Your task to perform on an android device: delete location history Image 0: 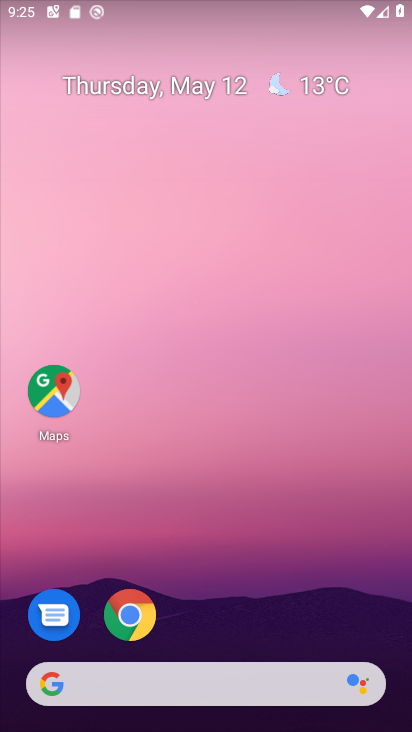
Step 0: press home button
Your task to perform on an android device: delete location history Image 1: 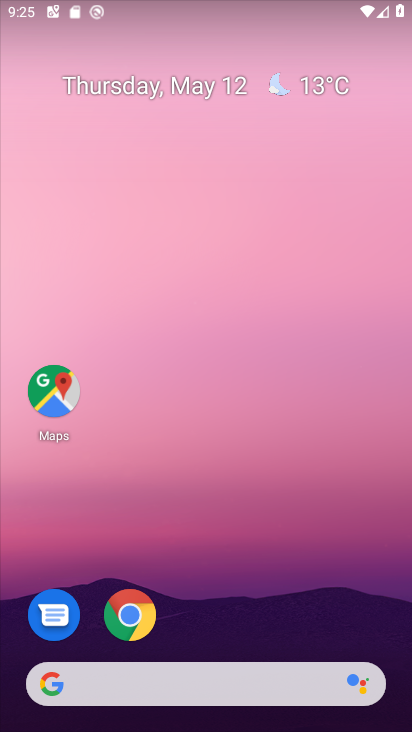
Step 1: drag from (268, 506) to (163, 12)
Your task to perform on an android device: delete location history Image 2: 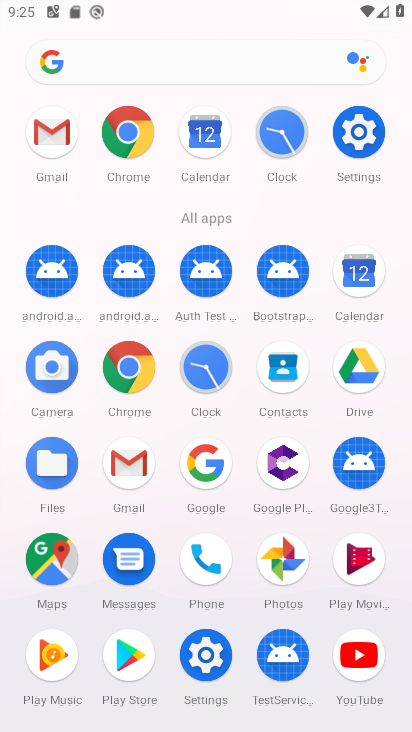
Step 2: click (43, 568)
Your task to perform on an android device: delete location history Image 3: 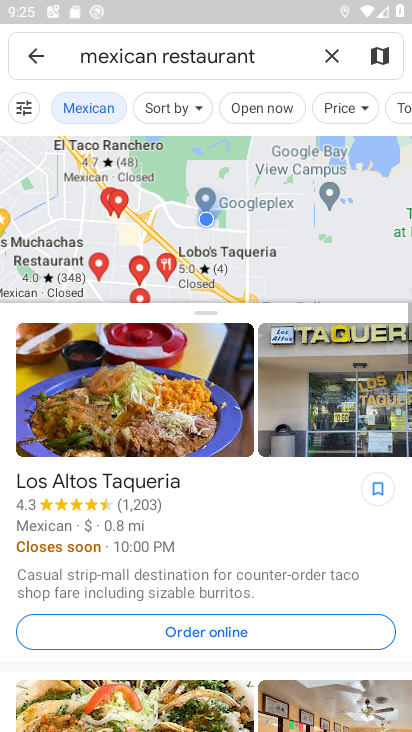
Step 3: click (31, 59)
Your task to perform on an android device: delete location history Image 4: 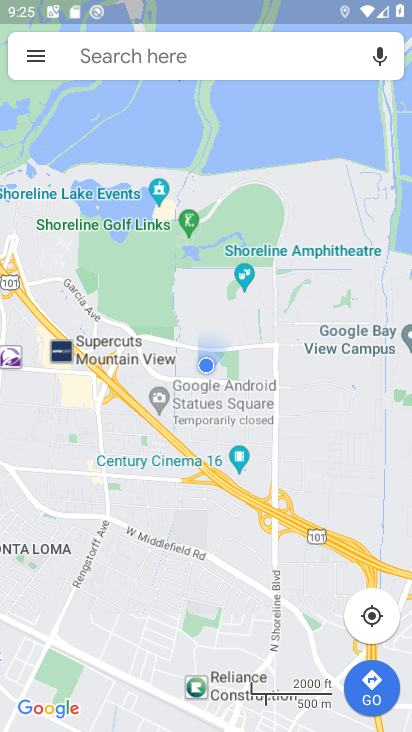
Step 4: click (35, 59)
Your task to perform on an android device: delete location history Image 5: 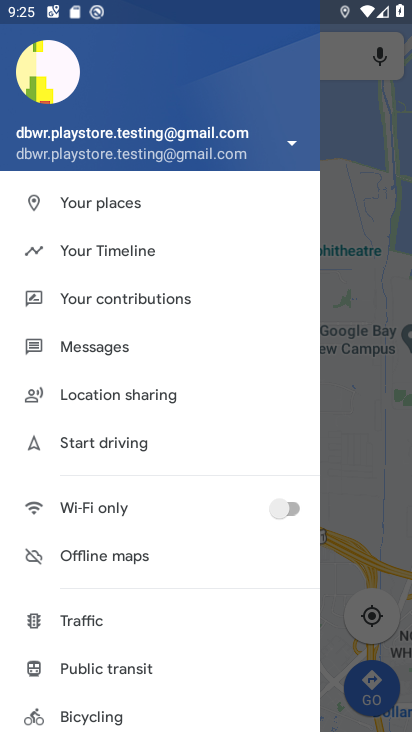
Step 5: click (126, 252)
Your task to perform on an android device: delete location history Image 6: 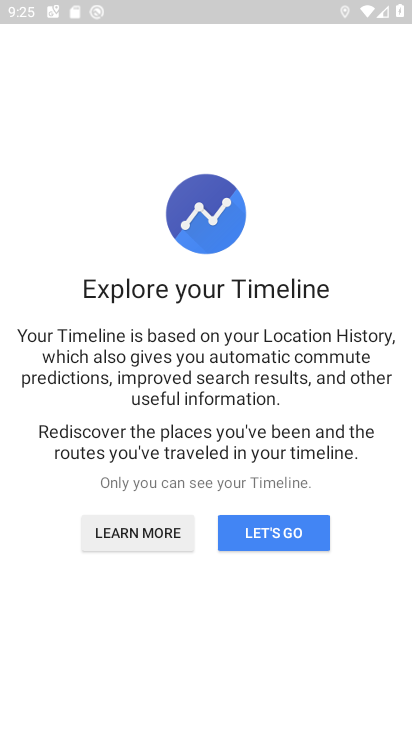
Step 6: click (246, 544)
Your task to perform on an android device: delete location history Image 7: 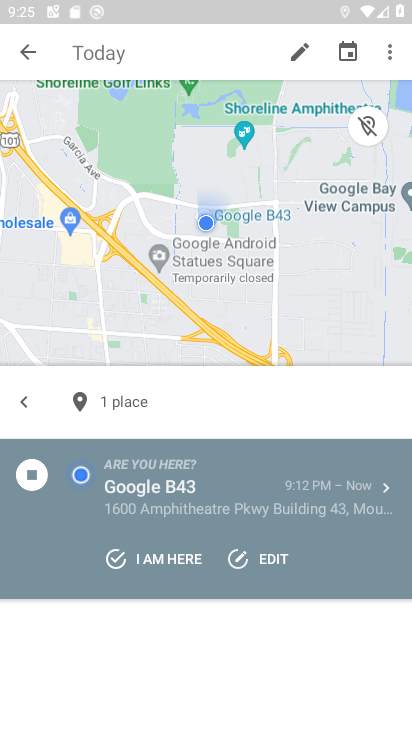
Step 7: click (389, 50)
Your task to perform on an android device: delete location history Image 8: 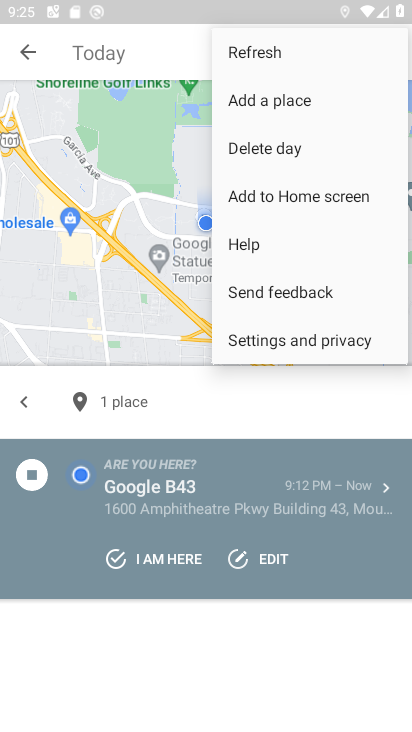
Step 8: click (304, 335)
Your task to perform on an android device: delete location history Image 9: 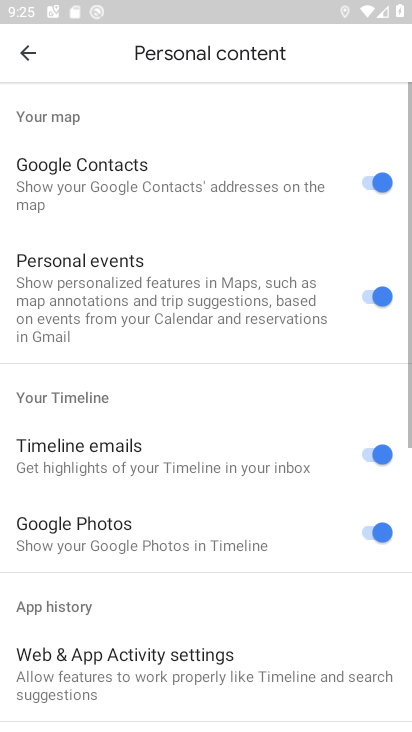
Step 9: drag from (286, 564) to (215, 293)
Your task to perform on an android device: delete location history Image 10: 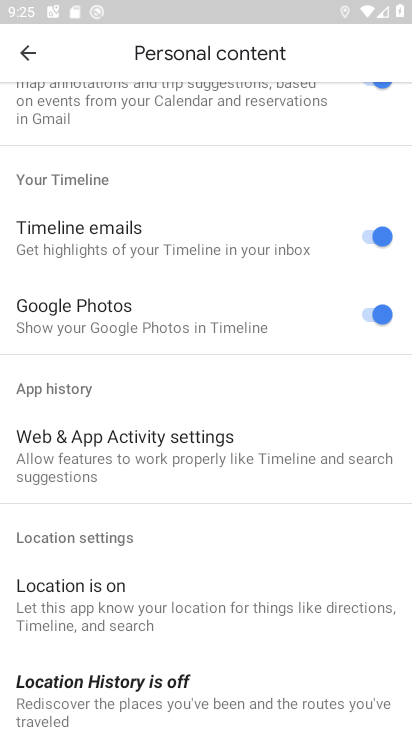
Step 10: drag from (220, 526) to (172, 264)
Your task to perform on an android device: delete location history Image 11: 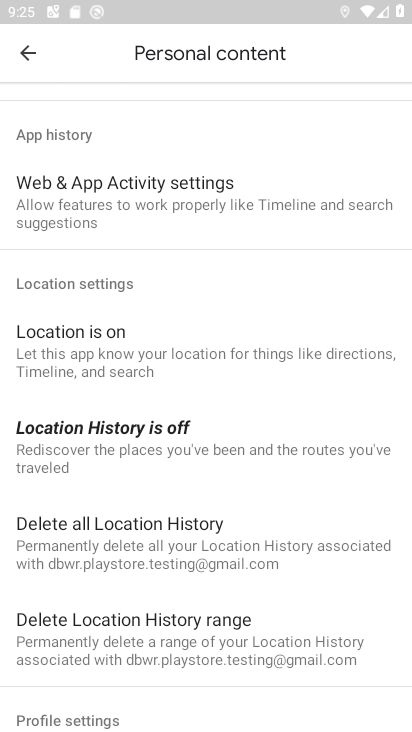
Step 11: click (126, 534)
Your task to perform on an android device: delete location history Image 12: 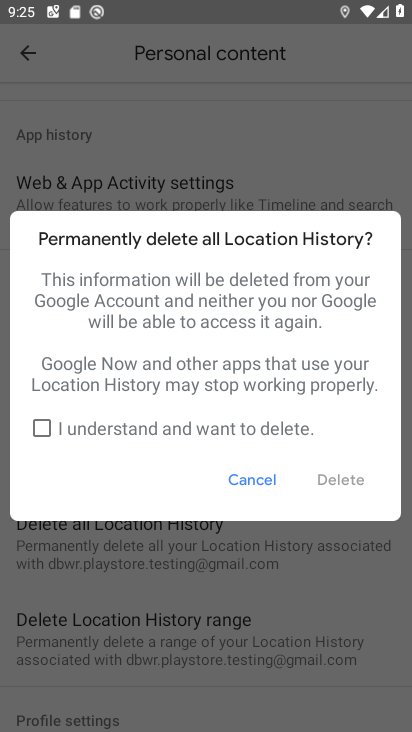
Step 12: click (40, 430)
Your task to perform on an android device: delete location history Image 13: 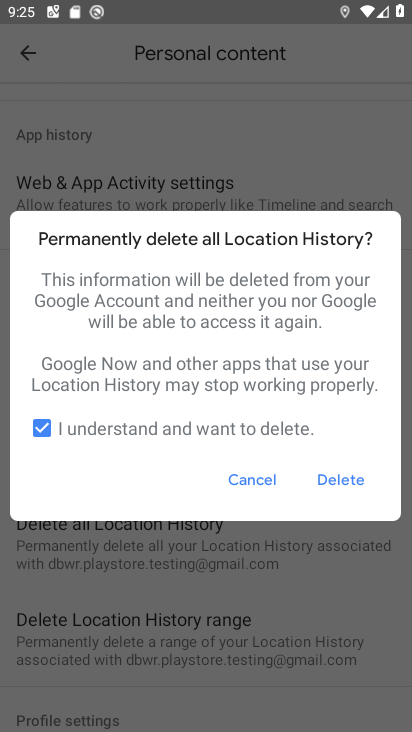
Step 13: click (336, 480)
Your task to perform on an android device: delete location history Image 14: 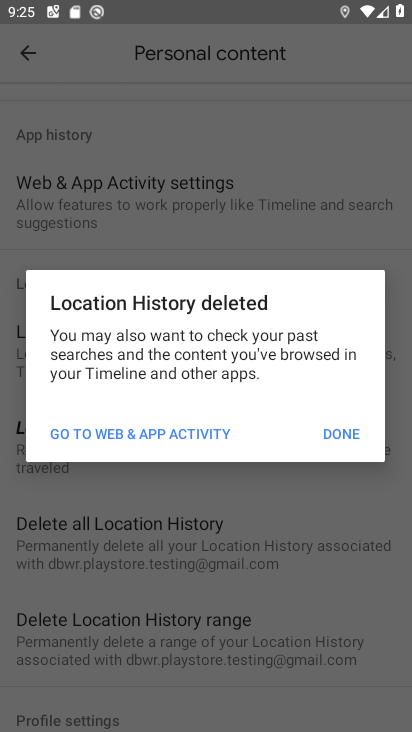
Step 14: click (344, 435)
Your task to perform on an android device: delete location history Image 15: 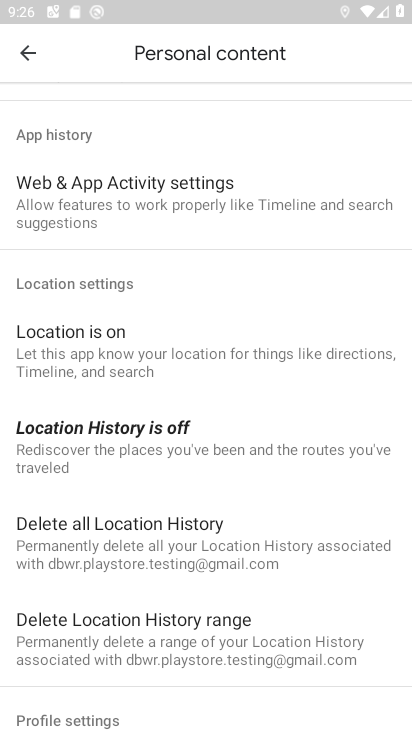
Step 15: task complete